Your task to perform on an android device: Check the news Image 0: 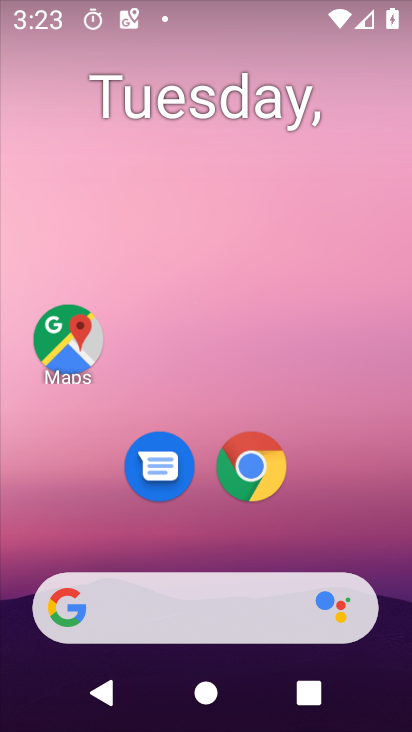
Step 0: drag from (6, 232) to (402, 348)
Your task to perform on an android device: Check the news Image 1: 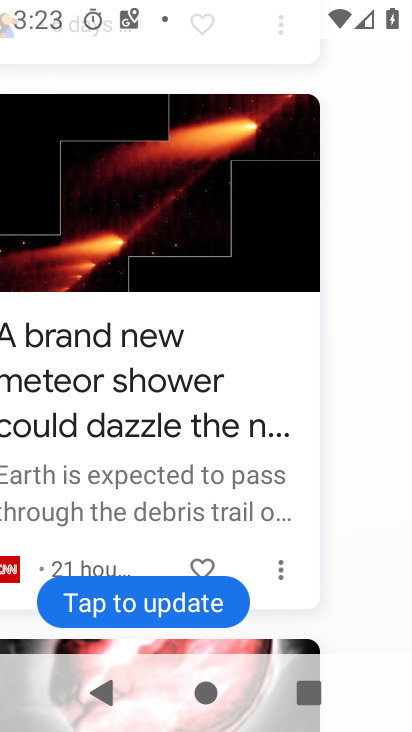
Step 1: task complete